Your task to perform on an android device: toggle data saver in the chrome app Image 0: 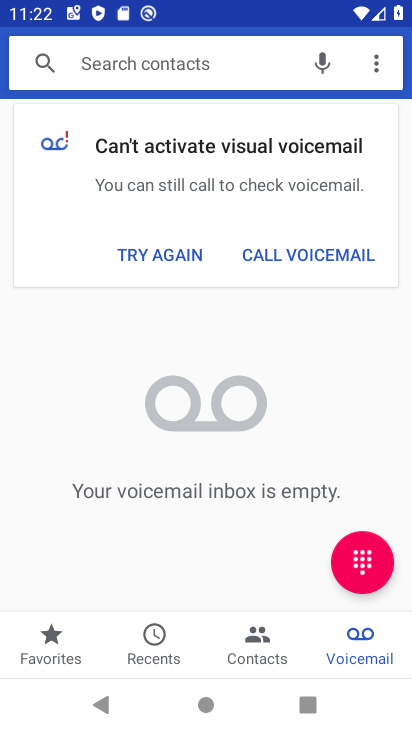
Step 0: press home button
Your task to perform on an android device: toggle data saver in the chrome app Image 1: 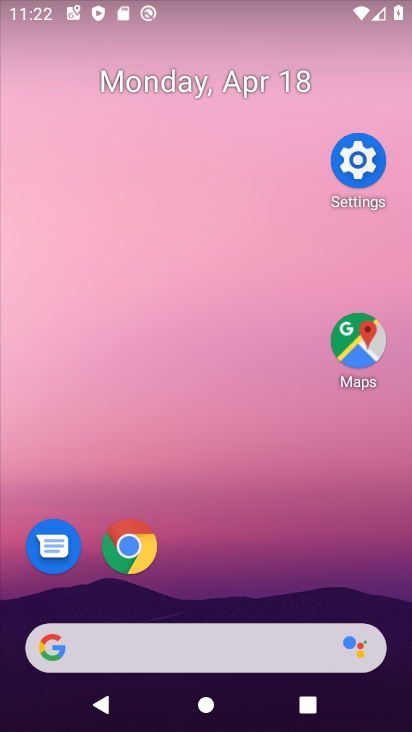
Step 1: drag from (239, 696) to (13, 84)
Your task to perform on an android device: toggle data saver in the chrome app Image 2: 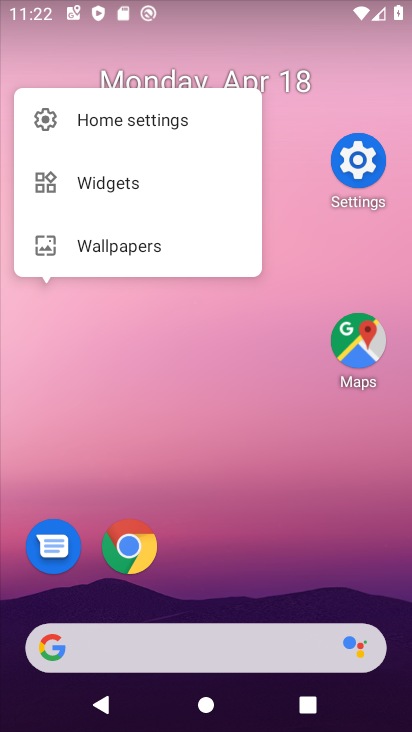
Step 2: drag from (341, 642) to (136, 51)
Your task to perform on an android device: toggle data saver in the chrome app Image 3: 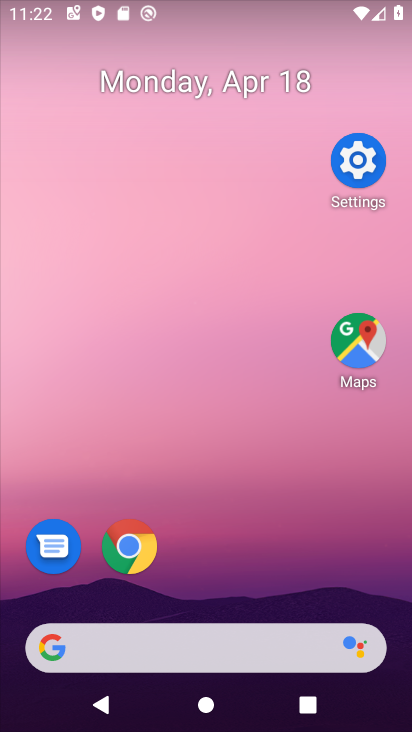
Step 3: drag from (274, 515) to (176, 210)
Your task to perform on an android device: toggle data saver in the chrome app Image 4: 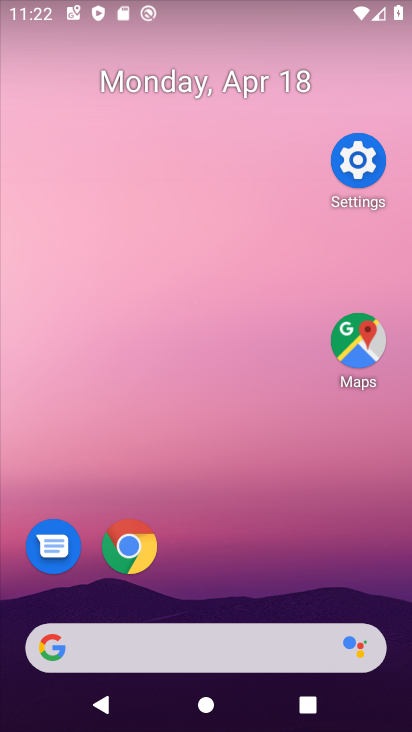
Step 4: drag from (131, 30) to (158, 147)
Your task to perform on an android device: toggle data saver in the chrome app Image 5: 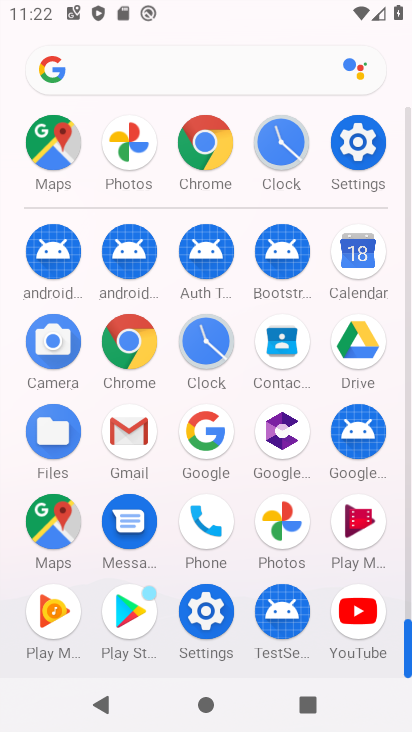
Step 5: click (207, 140)
Your task to perform on an android device: toggle data saver in the chrome app Image 6: 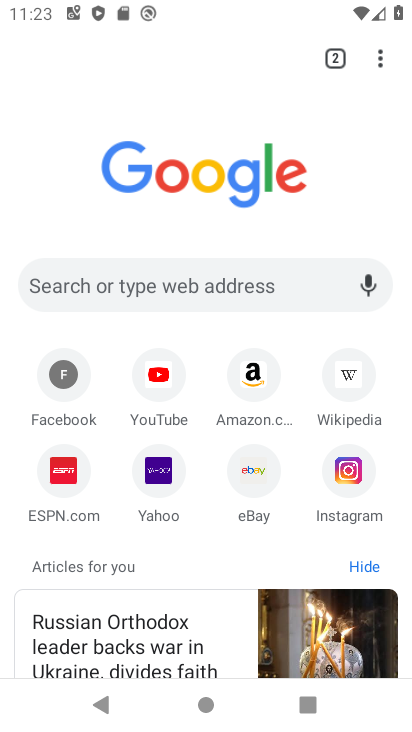
Step 6: click (380, 55)
Your task to perform on an android device: toggle data saver in the chrome app Image 7: 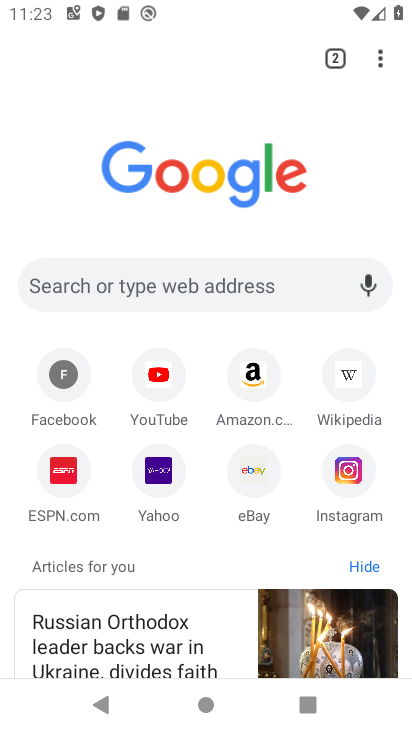
Step 7: click (380, 55)
Your task to perform on an android device: toggle data saver in the chrome app Image 8: 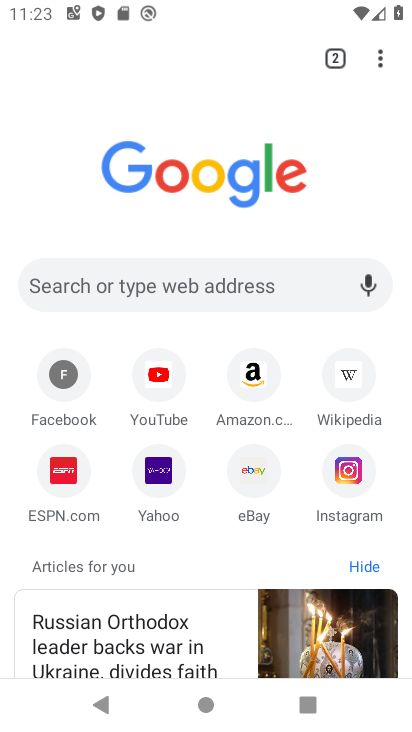
Step 8: drag from (380, 55) to (220, 698)
Your task to perform on an android device: toggle data saver in the chrome app Image 9: 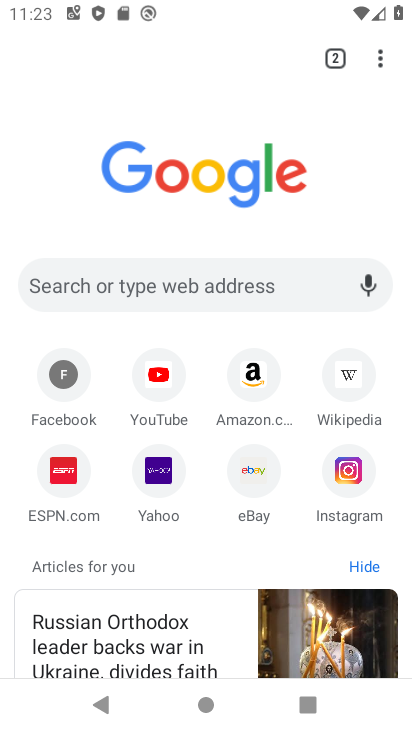
Step 9: click (381, 61)
Your task to perform on an android device: toggle data saver in the chrome app Image 10: 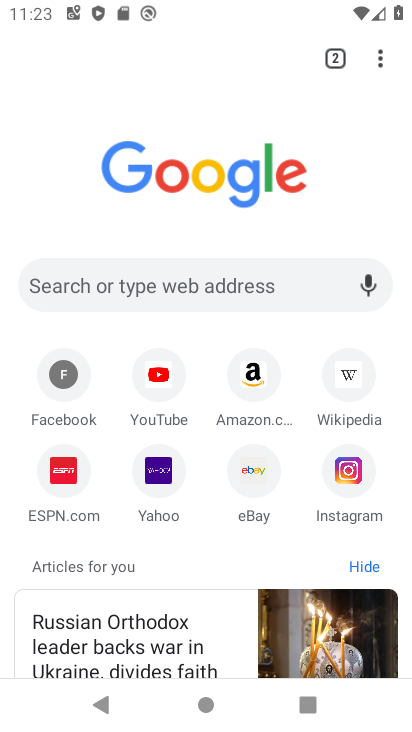
Step 10: click (378, 51)
Your task to perform on an android device: toggle data saver in the chrome app Image 11: 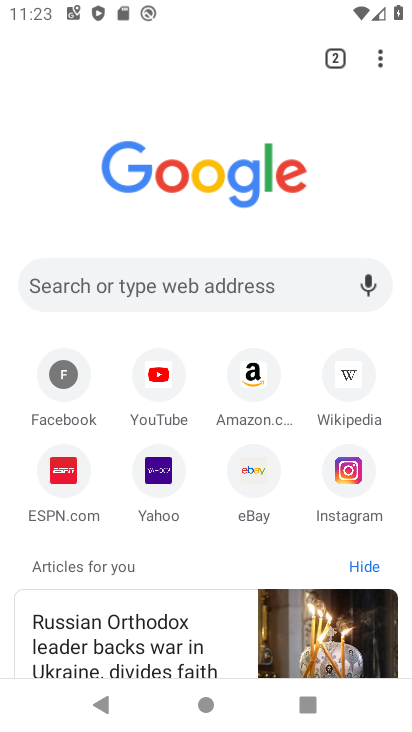
Step 11: click (373, 47)
Your task to perform on an android device: toggle data saver in the chrome app Image 12: 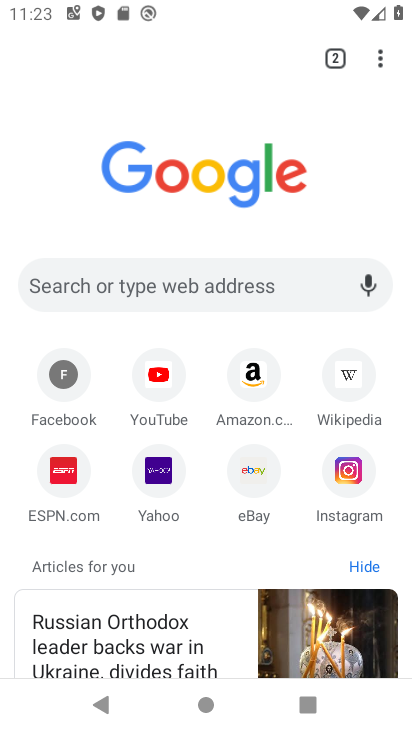
Step 12: click (383, 49)
Your task to perform on an android device: toggle data saver in the chrome app Image 13: 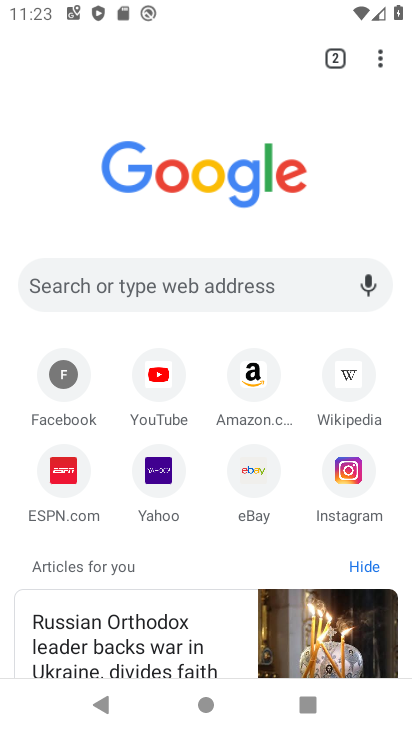
Step 13: click (373, 57)
Your task to perform on an android device: toggle data saver in the chrome app Image 14: 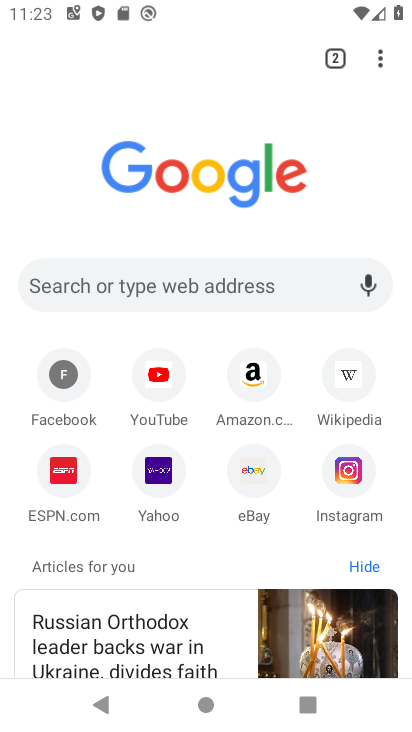
Step 14: click (376, 49)
Your task to perform on an android device: toggle data saver in the chrome app Image 15: 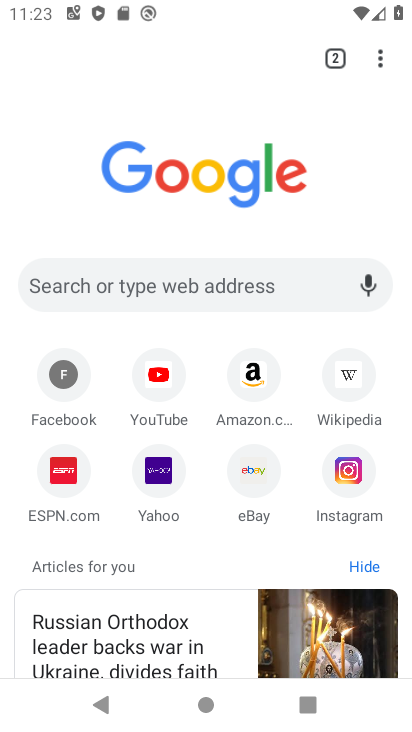
Step 15: click (376, 52)
Your task to perform on an android device: toggle data saver in the chrome app Image 16: 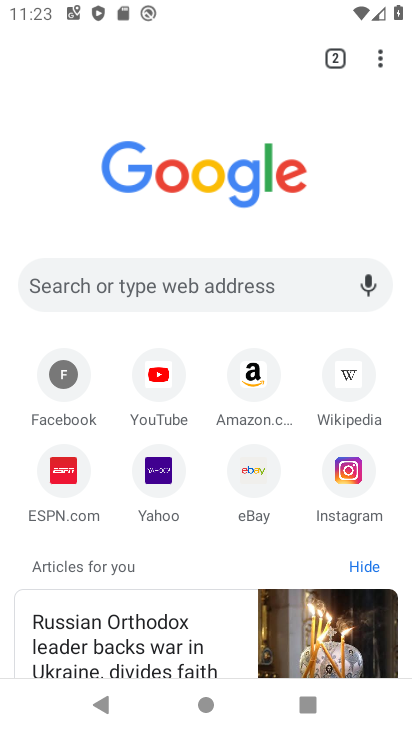
Step 16: click (378, 52)
Your task to perform on an android device: toggle data saver in the chrome app Image 17: 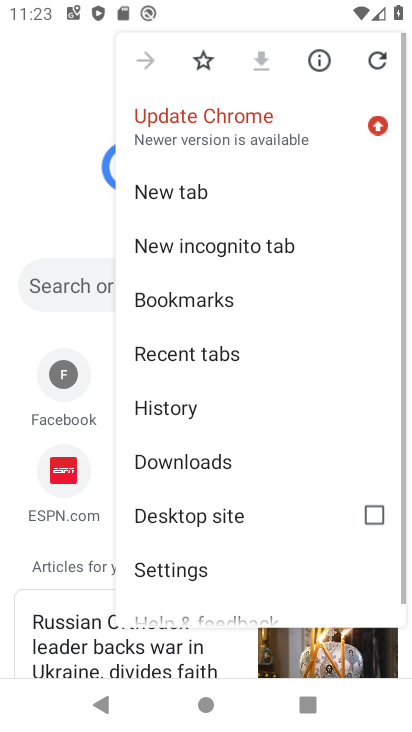
Step 17: click (376, 58)
Your task to perform on an android device: toggle data saver in the chrome app Image 18: 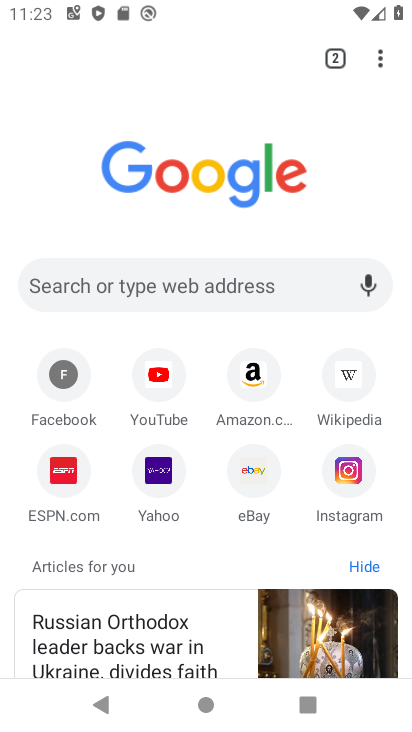
Step 18: click (371, 52)
Your task to perform on an android device: toggle data saver in the chrome app Image 19: 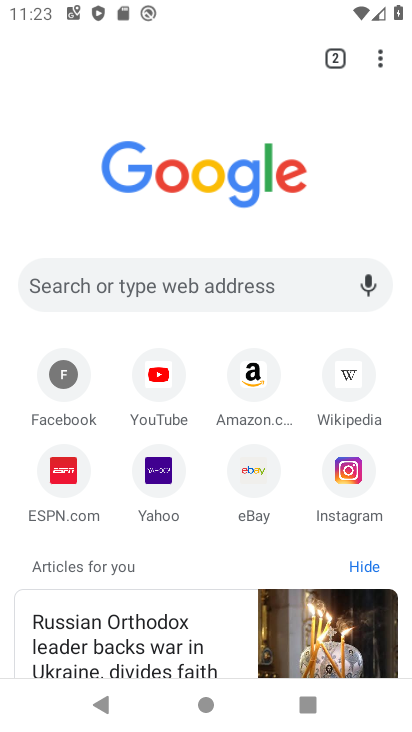
Step 19: click (371, 53)
Your task to perform on an android device: toggle data saver in the chrome app Image 20: 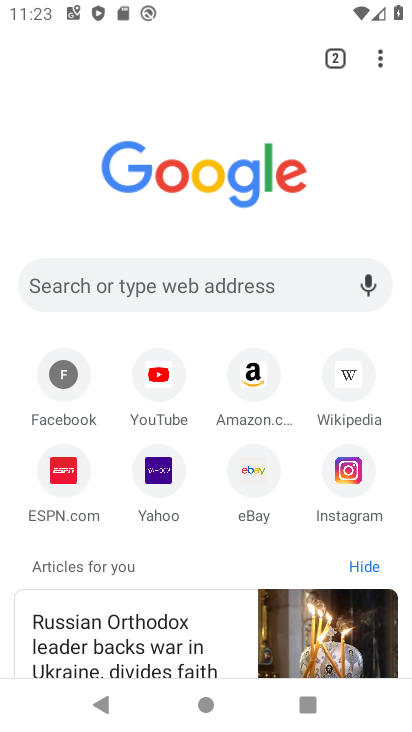
Step 20: click (372, 54)
Your task to perform on an android device: toggle data saver in the chrome app Image 21: 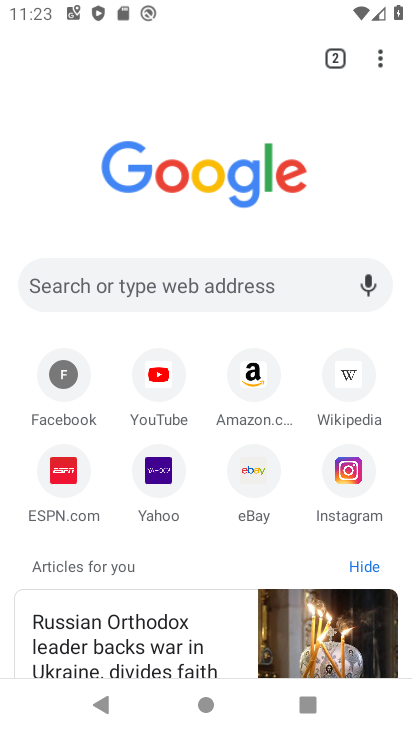
Step 21: click (372, 54)
Your task to perform on an android device: toggle data saver in the chrome app Image 22: 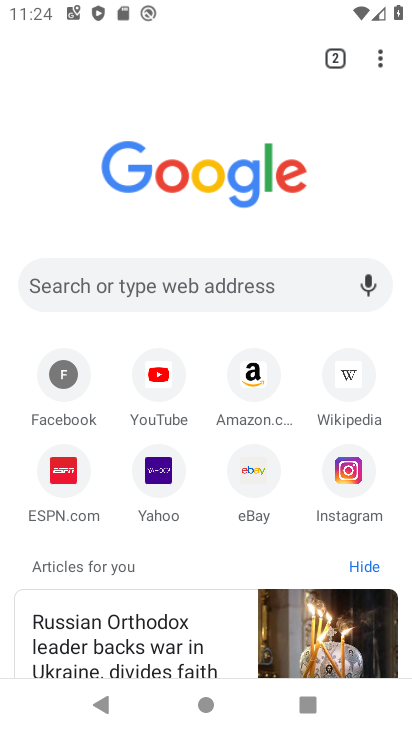
Step 22: click (384, 50)
Your task to perform on an android device: toggle data saver in the chrome app Image 23: 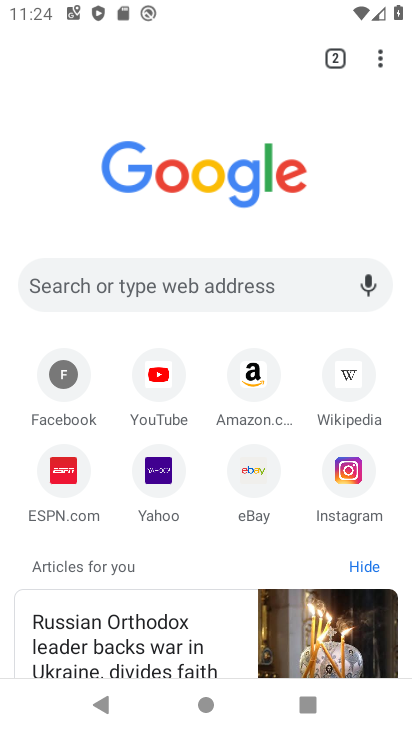
Step 23: click (383, 56)
Your task to perform on an android device: toggle data saver in the chrome app Image 24: 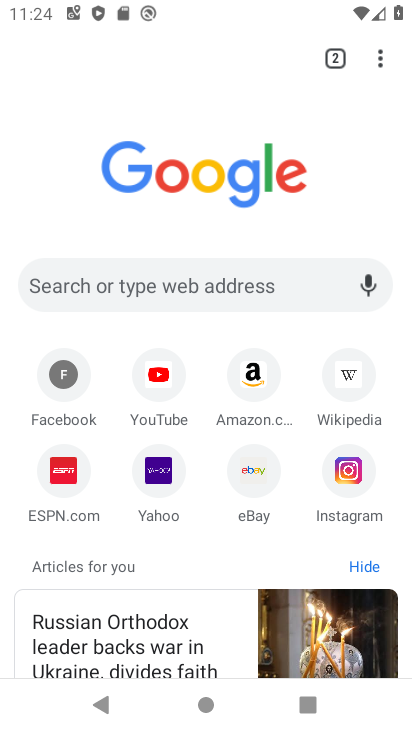
Step 24: click (375, 48)
Your task to perform on an android device: toggle data saver in the chrome app Image 25: 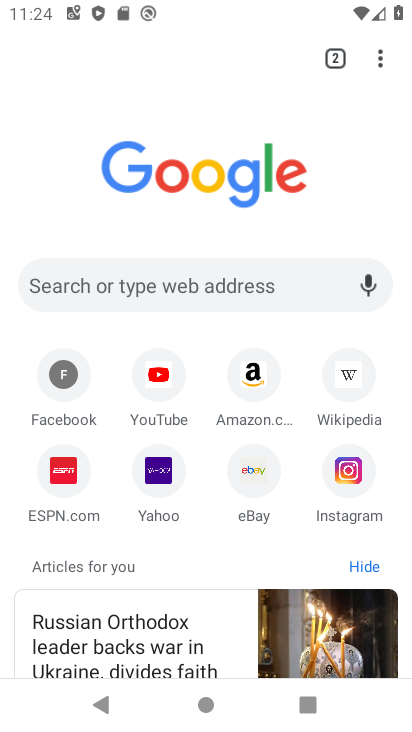
Step 25: click (380, 53)
Your task to perform on an android device: toggle data saver in the chrome app Image 26: 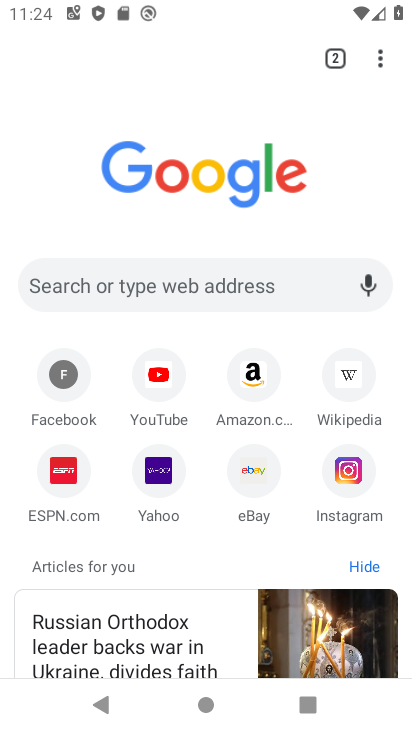
Step 26: click (379, 63)
Your task to perform on an android device: toggle data saver in the chrome app Image 27: 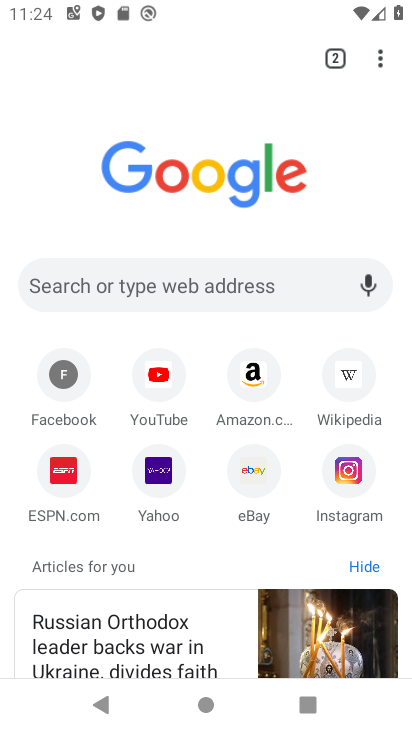
Step 27: click (379, 63)
Your task to perform on an android device: toggle data saver in the chrome app Image 28: 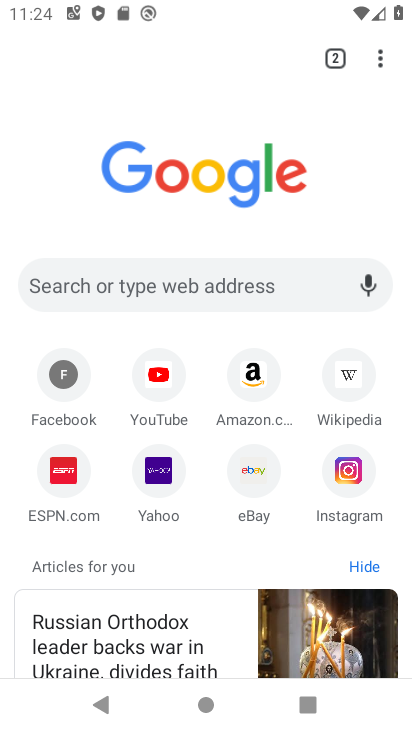
Step 28: click (379, 63)
Your task to perform on an android device: toggle data saver in the chrome app Image 29: 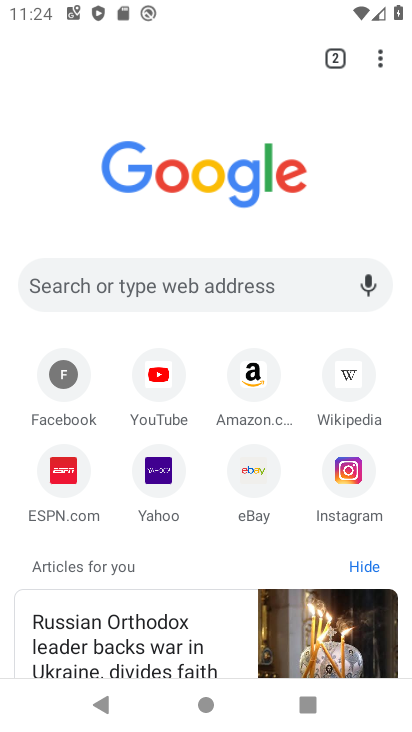
Step 29: click (377, 59)
Your task to perform on an android device: toggle data saver in the chrome app Image 30: 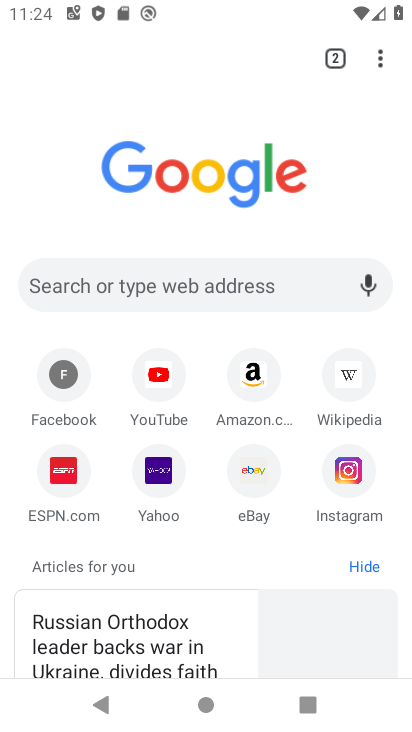
Step 30: click (378, 59)
Your task to perform on an android device: toggle data saver in the chrome app Image 31: 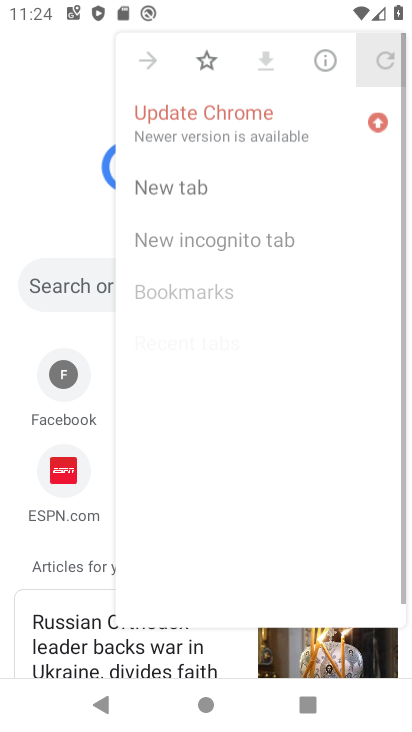
Step 31: click (378, 59)
Your task to perform on an android device: toggle data saver in the chrome app Image 32: 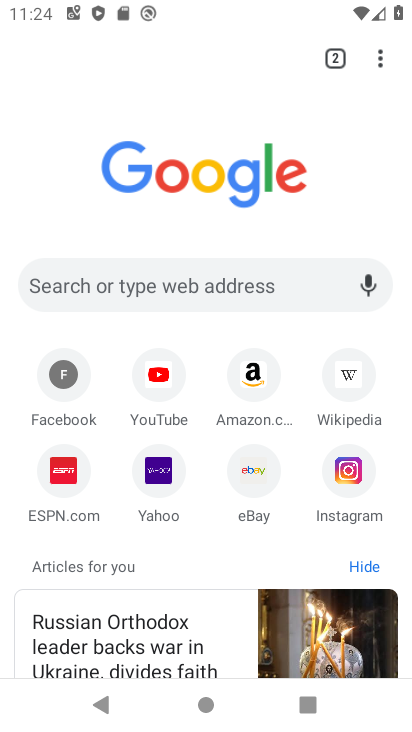
Step 32: click (377, 58)
Your task to perform on an android device: toggle data saver in the chrome app Image 33: 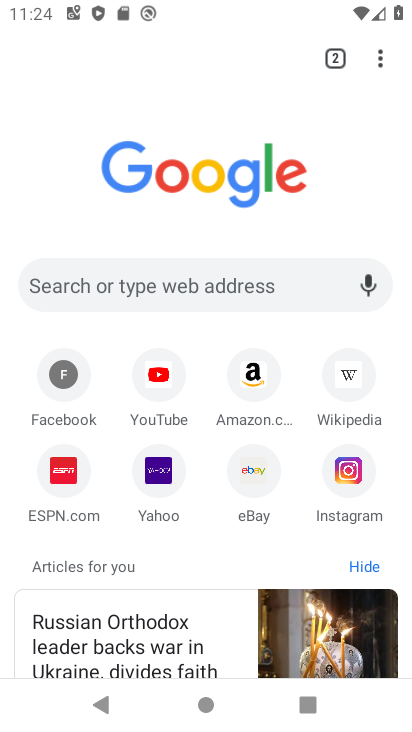
Step 33: click (372, 47)
Your task to perform on an android device: toggle data saver in the chrome app Image 34: 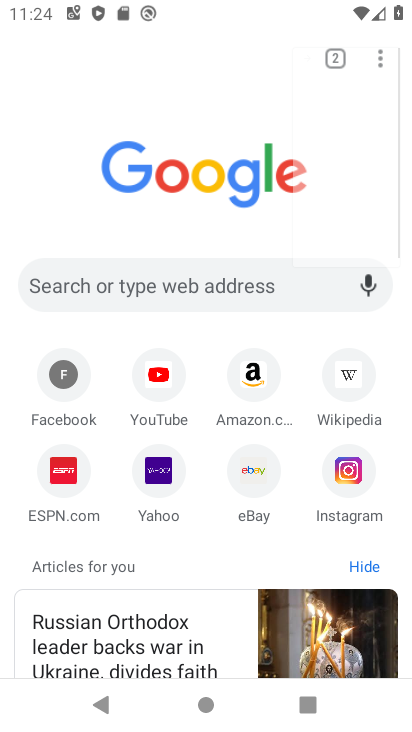
Step 34: click (372, 47)
Your task to perform on an android device: toggle data saver in the chrome app Image 35: 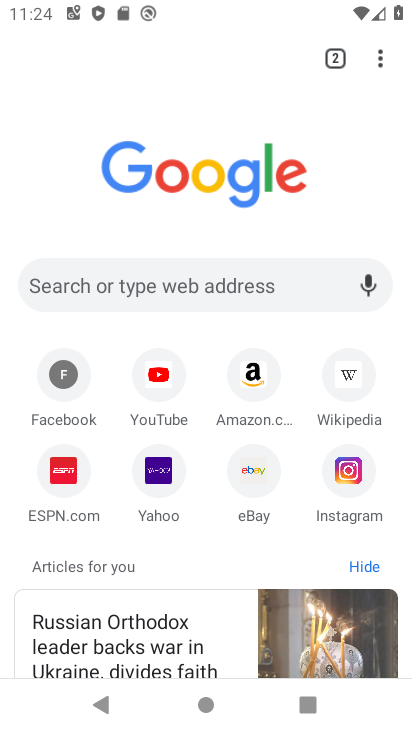
Step 35: click (373, 49)
Your task to perform on an android device: toggle data saver in the chrome app Image 36: 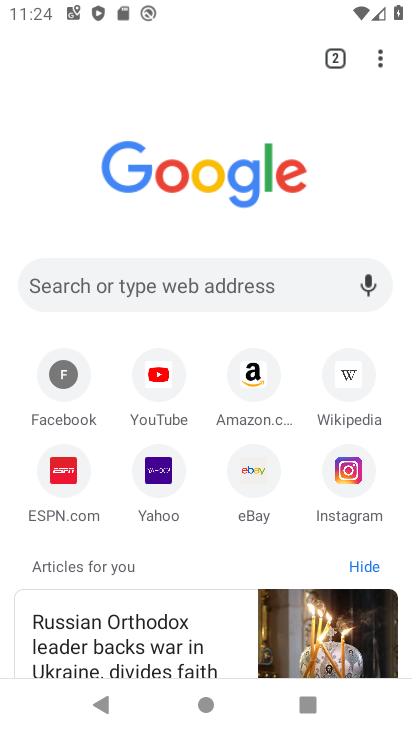
Step 36: click (378, 59)
Your task to perform on an android device: toggle data saver in the chrome app Image 37: 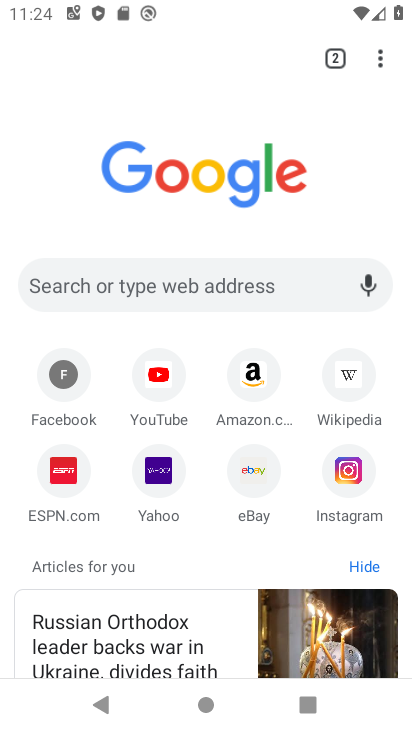
Step 37: click (382, 55)
Your task to perform on an android device: toggle data saver in the chrome app Image 38: 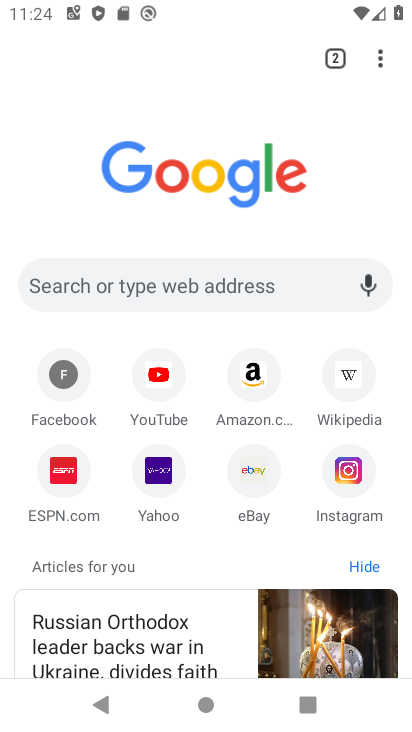
Step 38: click (377, 58)
Your task to perform on an android device: toggle data saver in the chrome app Image 39: 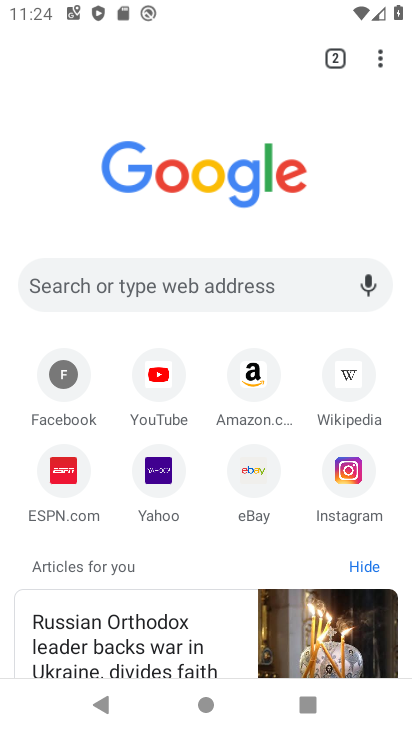
Step 39: click (376, 59)
Your task to perform on an android device: toggle data saver in the chrome app Image 40: 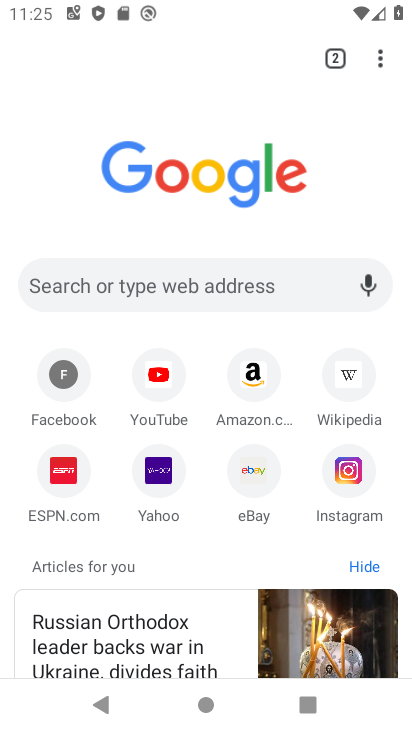
Step 40: click (376, 59)
Your task to perform on an android device: toggle data saver in the chrome app Image 41: 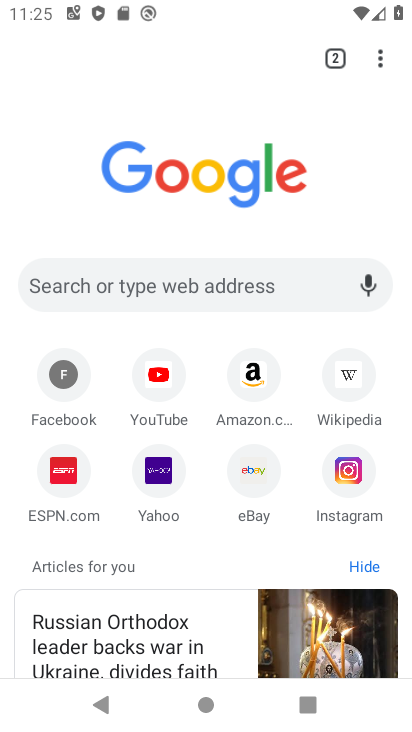
Step 41: click (376, 59)
Your task to perform on an android device: toggle data saver in the chrome app Image 42: 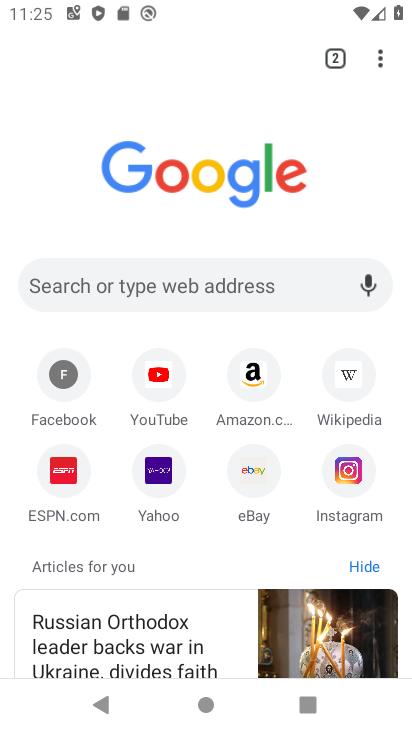
Step 42: click (376, 59)
Your task to perform on an android device: toggle data saver in the chrome app Image 43: 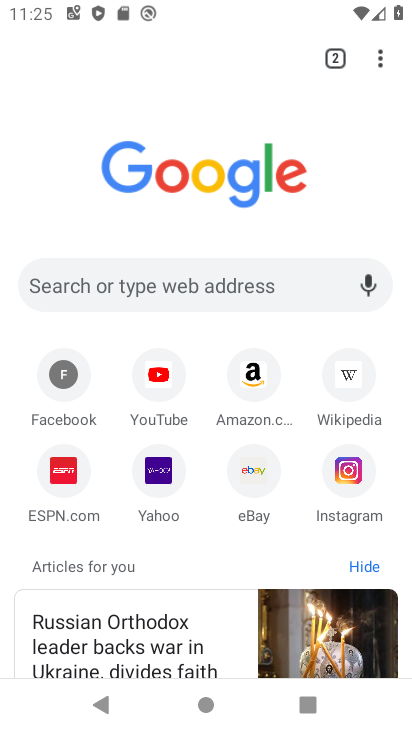
Step 43: click (382, 60)
Your task to perform on an android device: toggle data saver in the chrome app Image 44: 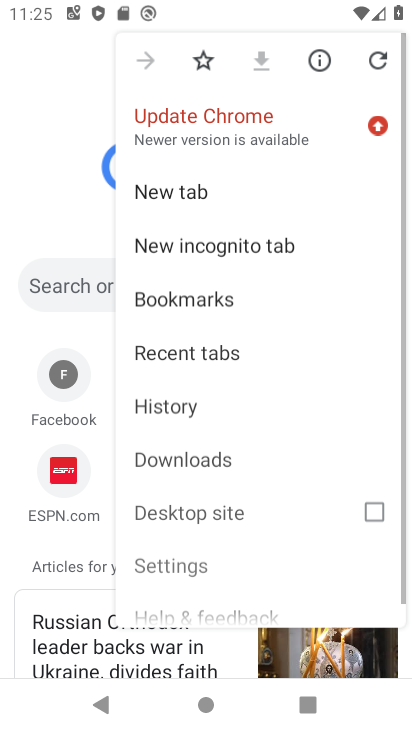
Step 44: click (382, 60)
Your task to perform on an android device: toggle data saver in the chrome app Image 45: 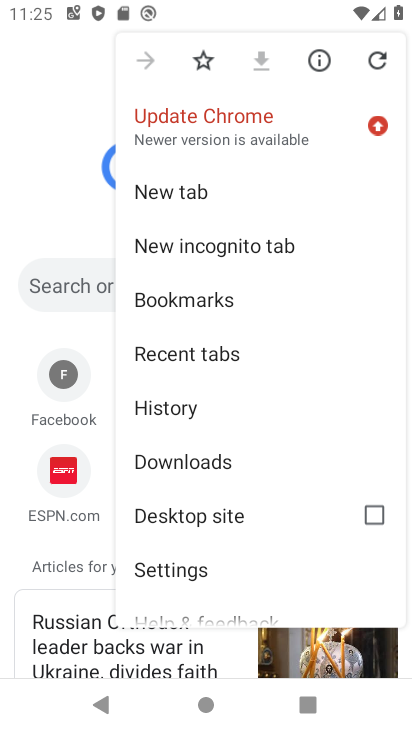
Step 45: click (166, 566)
Your task to perform on an android device: toggle data saver in the chrome app Image 46: 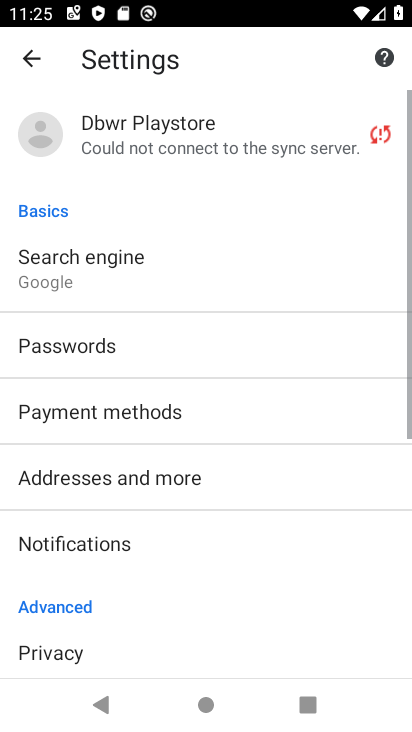
Step 46: drag from (167, 564) to (117, 150)
Your task to perform on an android device: toggle data saver in the chrome app Image 47: 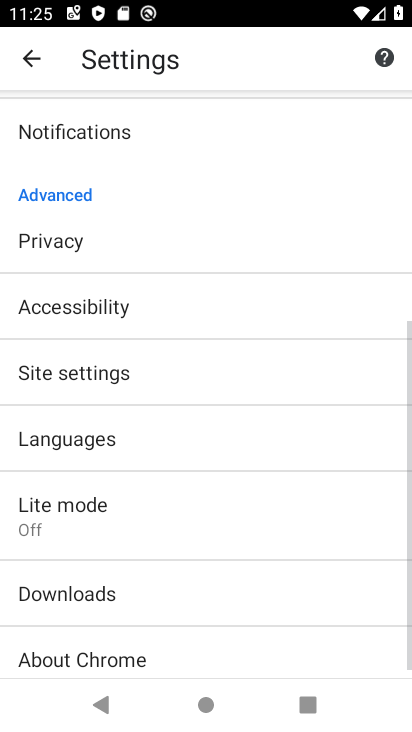
Step 47: click (56, 500)
Your task to perform on an android device: toggle data saver in the chrome app Image 48: 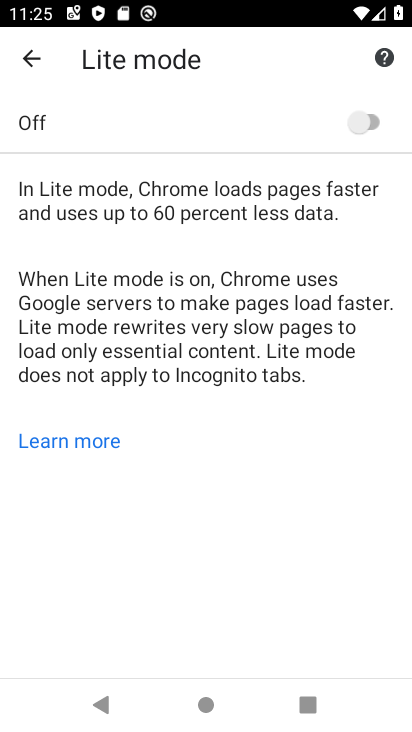
Step 48: click (358, 119)
Your task to perform on an android device: toggle data saver in the chrome app Image 49: 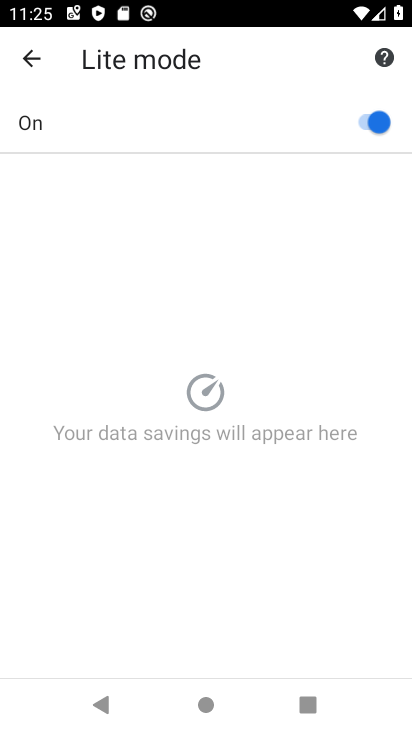
Step 49: task complete